Your task to perform on an android device: turn on priority inbox in the gmail app Image 0: 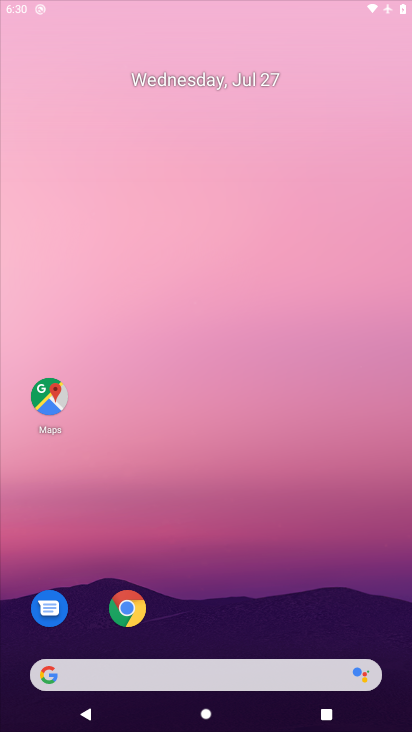
Step 0: press home button
Your task to perform on an android device: turn on priority inbox in the gmail app Image 1: 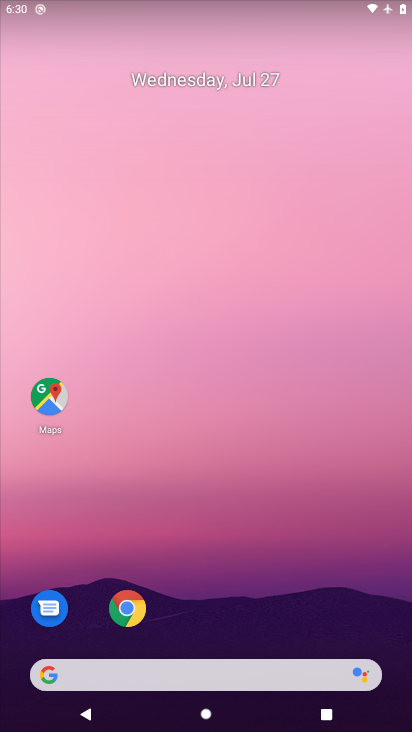
Step 1: drag from (219, 642) to (203, 519)
Your task to perform on an android device: turn on priority inbox in the gmail app Image 2: 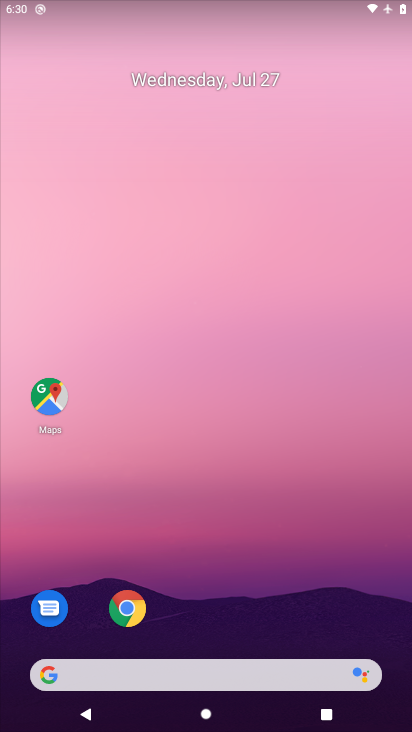
Step 2: drag from (201, 625) to (175, 407)
Your task to perform on an android device: turn on priority inbox in the gmail app Image 3: 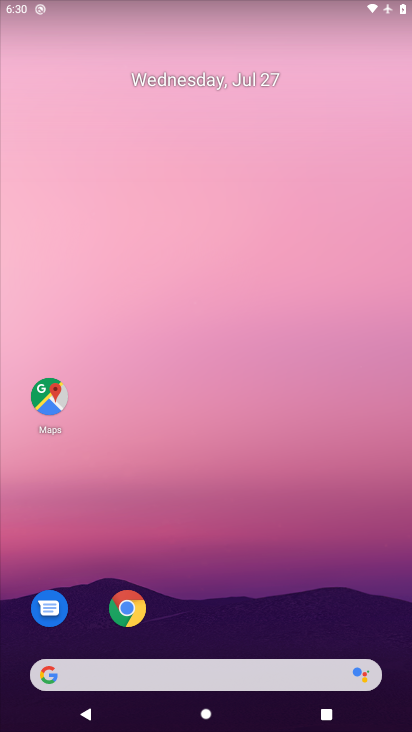
Step 3: drag from (197, 620) to (250, 182)
Your task to perform on an android device: turn on priority inbox in the gmail app Image 4: 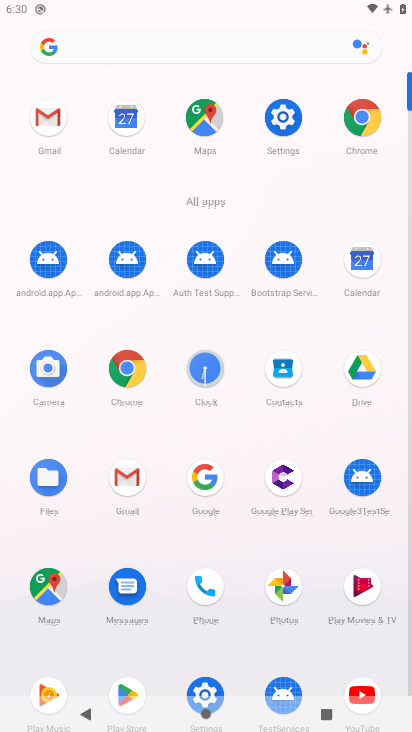
Step 4: click (43, 120)
Your task to perform on an android device: turn on priority inbox in the gmail app Image 5: 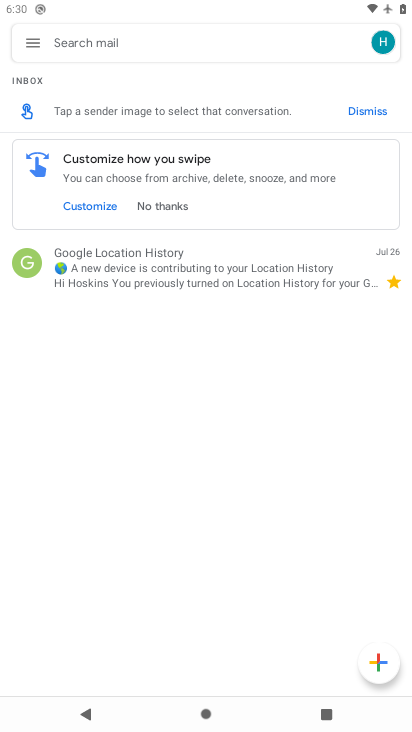
Step 5: click (32, 51)
Your task to perform on an android device: turn on priority inbox in the gmail app Image 6: 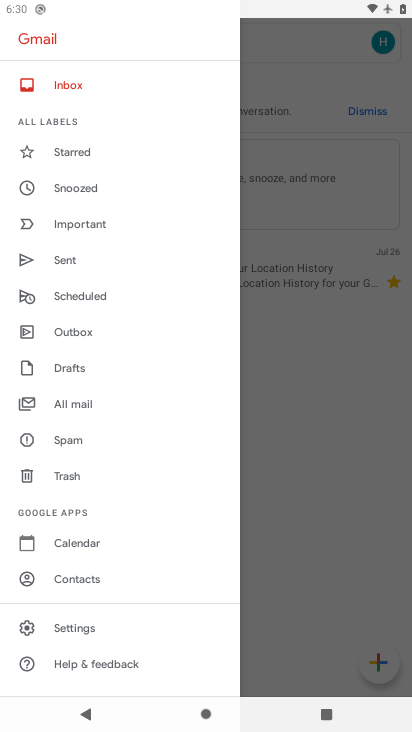
Step 6: click (75, 631)
Your task to perform on an android device: turn on priority inbox in the gmail app Image 7: 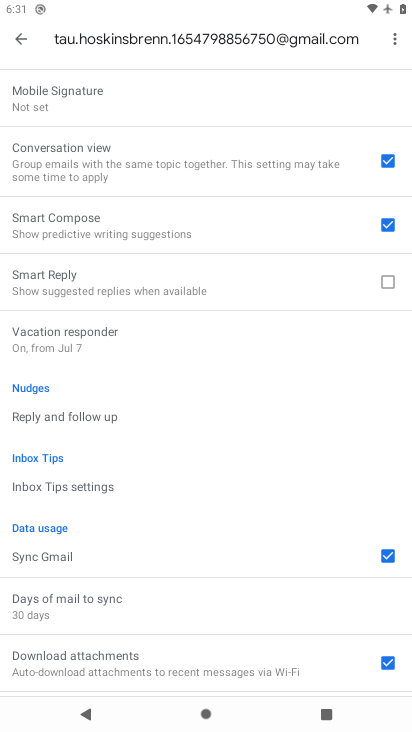
Step 7: drag from (213, 360) to (410, 386)
Your task to perform on an android device: turn on priority inbox in the gmail app Image 8: 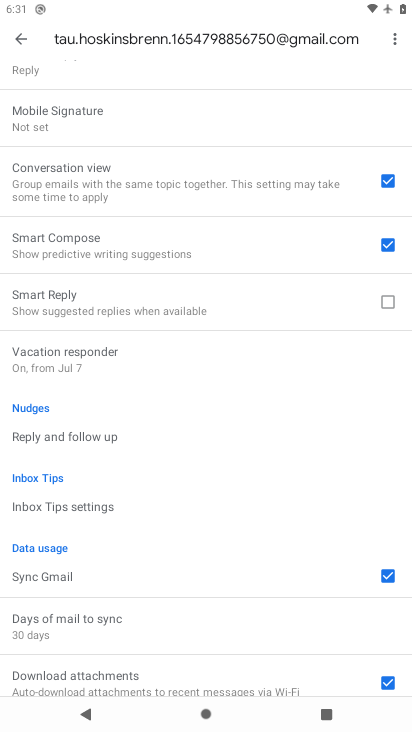
Step 8: click (206, 128)
Your task to perform on an android device: turn on priority inbox in the gmail app Image 9: 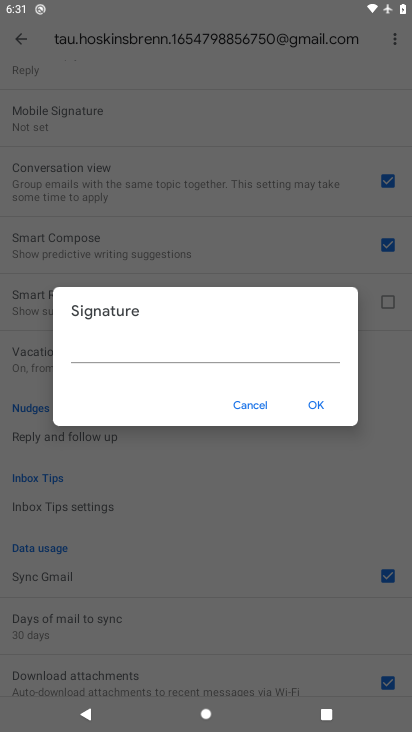
Step 9: click (253, 408)
Your task to perform on an android device: turn on priority inbox in the gmail app Image 10: 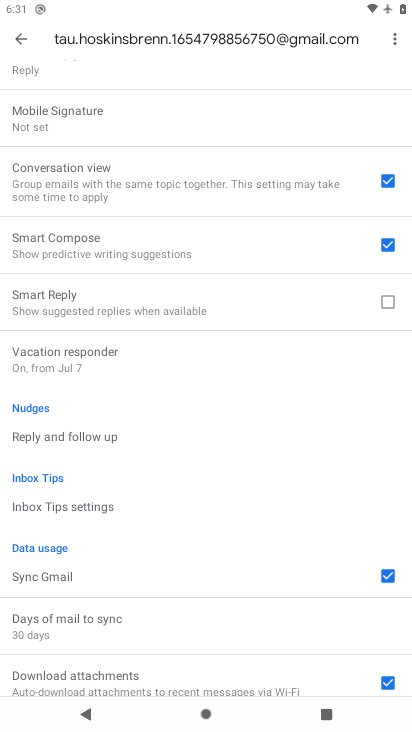
Step 10: click (251, 408)
Your task to perform on an android device: turn on priority inbox in the gmail app Image 11: 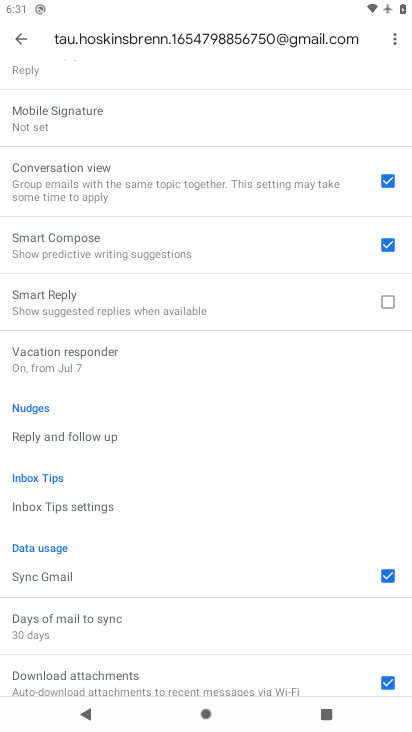
Step 11: drag from (227, 114) to (376, 660)
Your task to perform on an android device: turn on priority inbox in the gmail app Image 12: 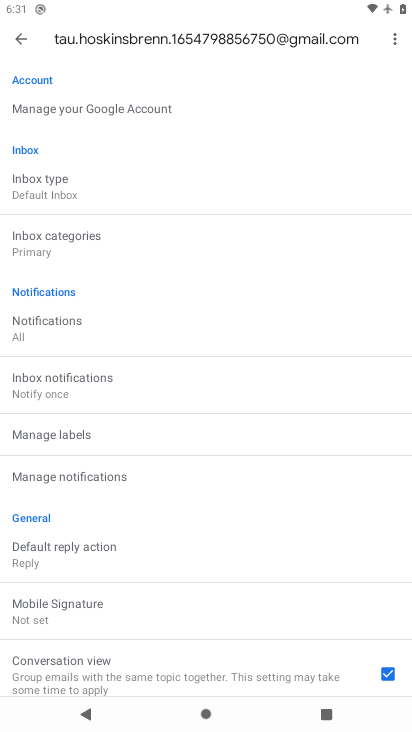
Step 12: click (39, 193)
Your task to perform on an android device: turn on priority inbox in the gmail app Image 13: 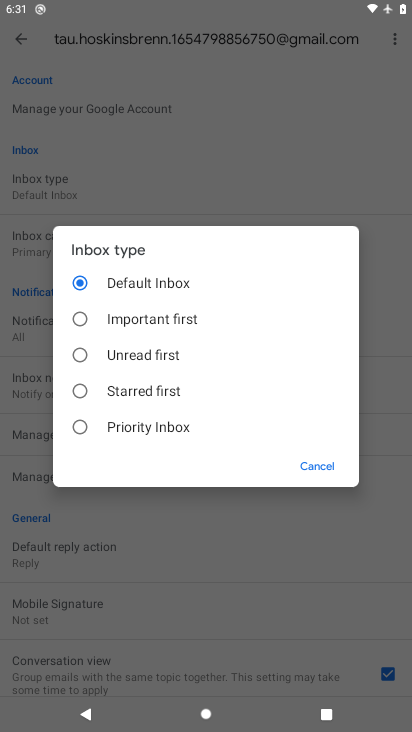
Step 13: click (83, 425)
Your task to perform on an android device: turn on priority inbox in the gmail app Image 14: 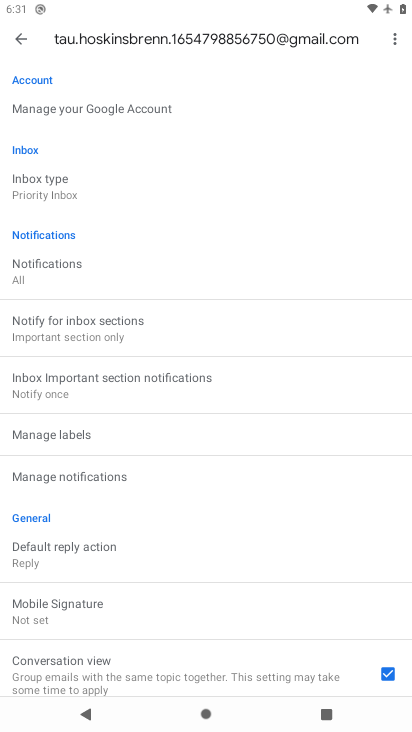
Step 14: task complete